Your task to perform on an android device: open app "Fetch Rewards" Image 0: 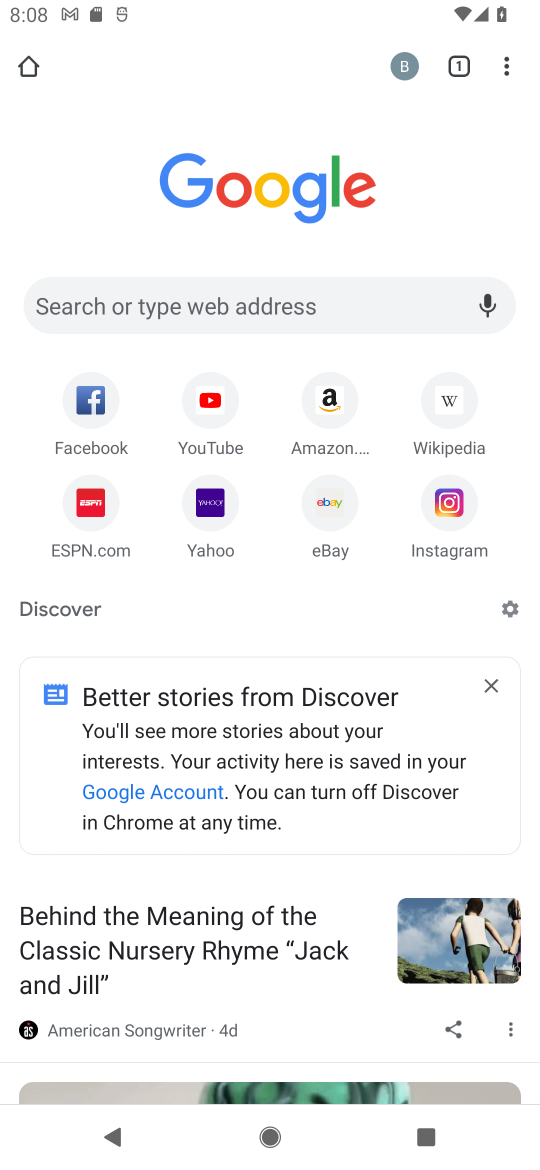
Step 0: press home button
Your task to perform on an android device: open app "Fetch Rewards" Image 1: 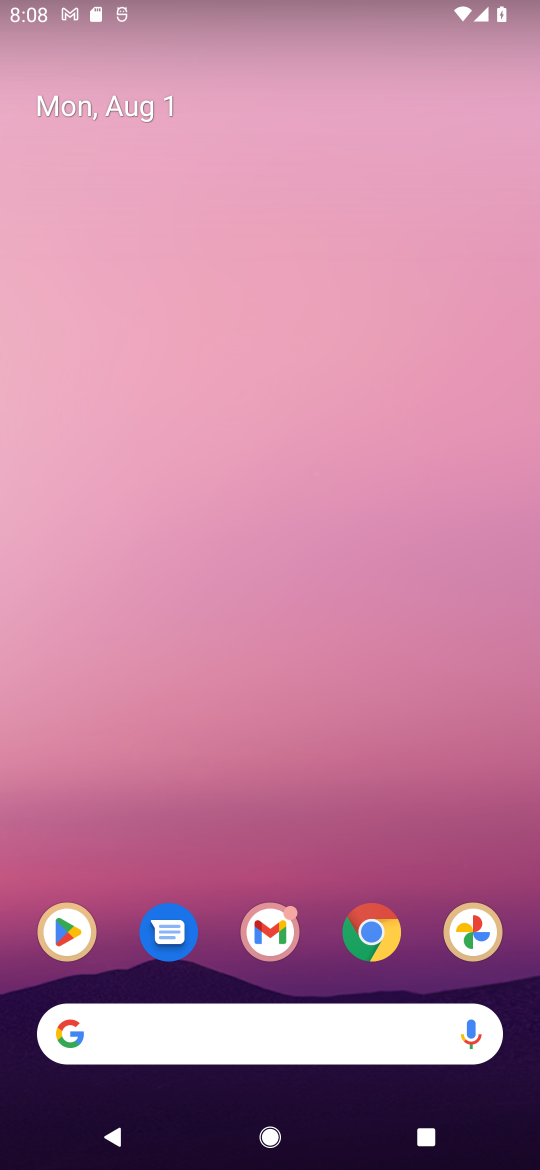
Step 1: click (54, 963)
Your task to perform on an android device: open app "Fetch Rewards" Image 2: 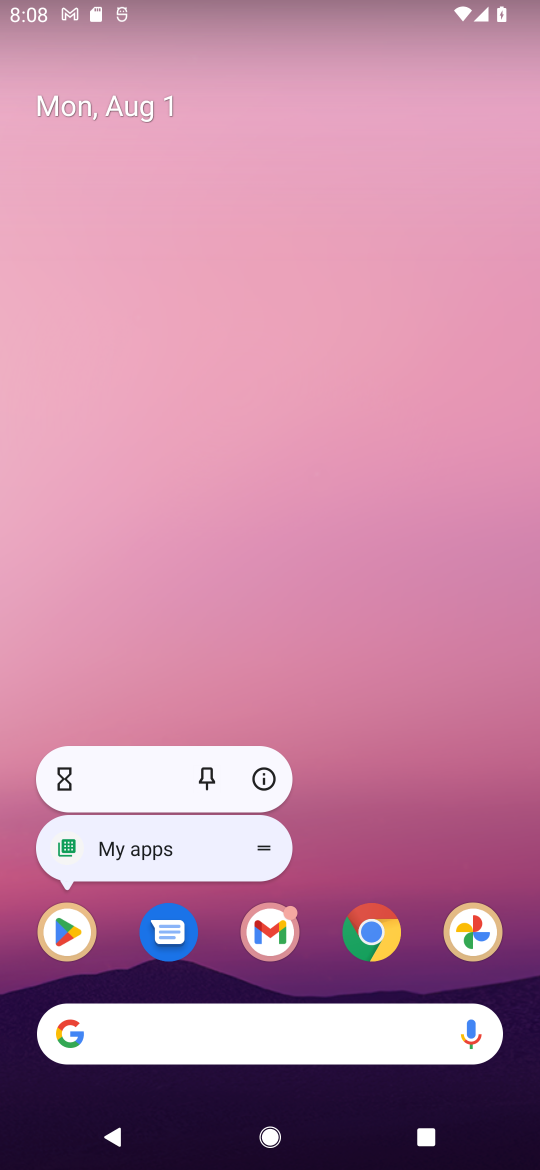
Step 2: click (68, 923)
Your task to perform on an android device: open app "Fetch Rewards" Image 3: 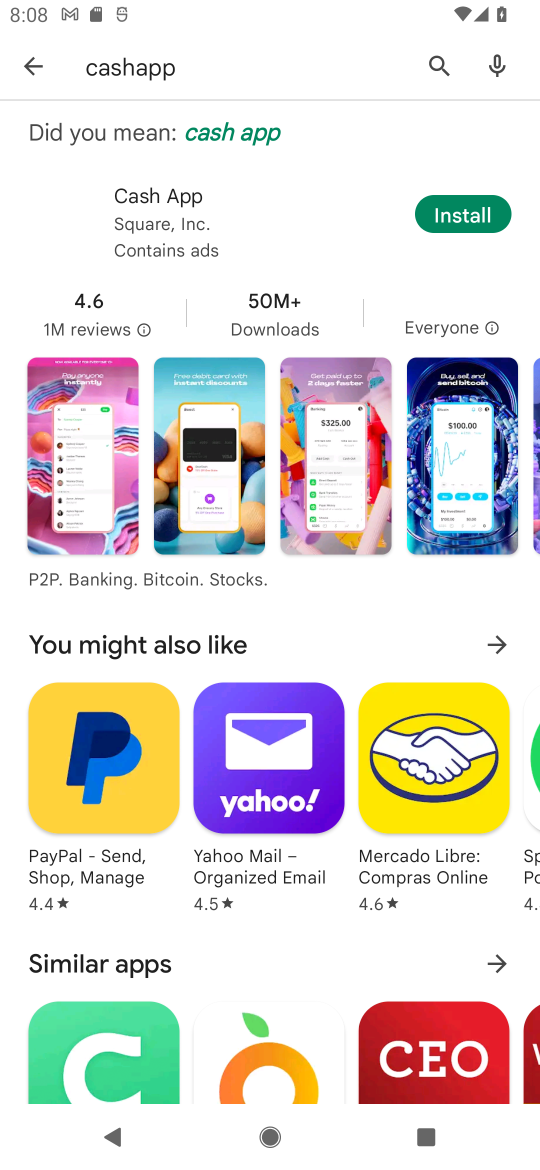
Step 3: click (196, 60)
Your task to perform on an android device: open app "Fetch Rewards" Image 4: 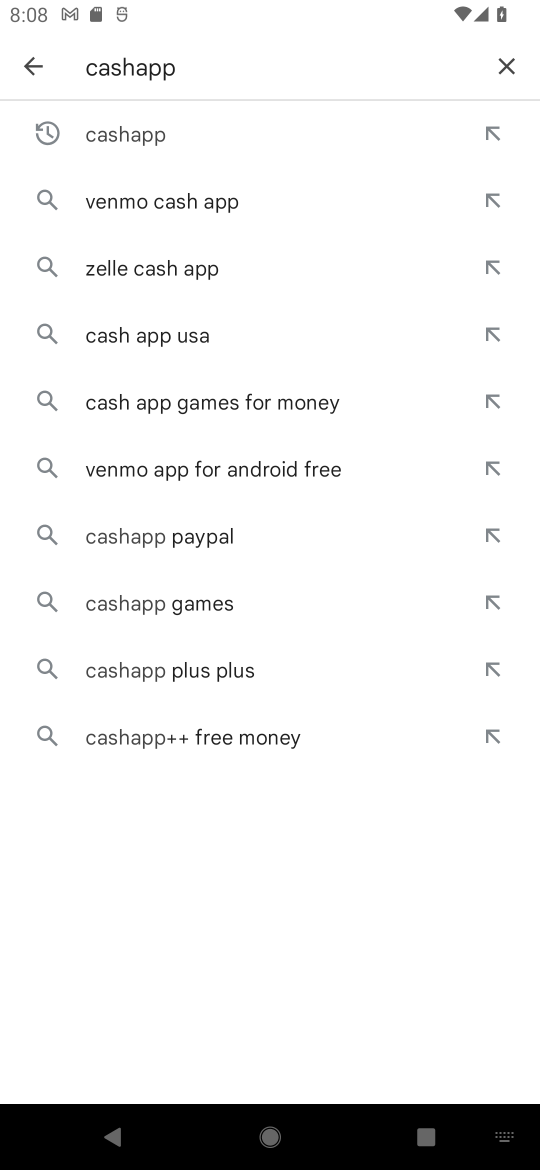
Step 4: click (494, 67)
Your task to perform on an android device: open app "Fetch Rewards" Image 5: 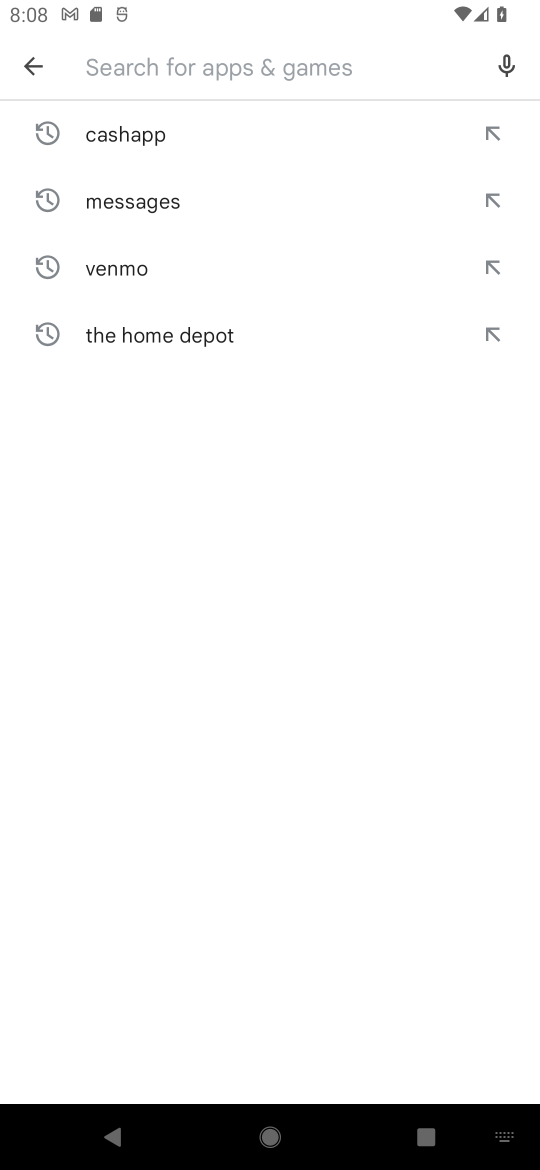
Step 5: type "fetch rewards"
Your task to perform on an android device: open app "Fetch Rewards" Image 6: 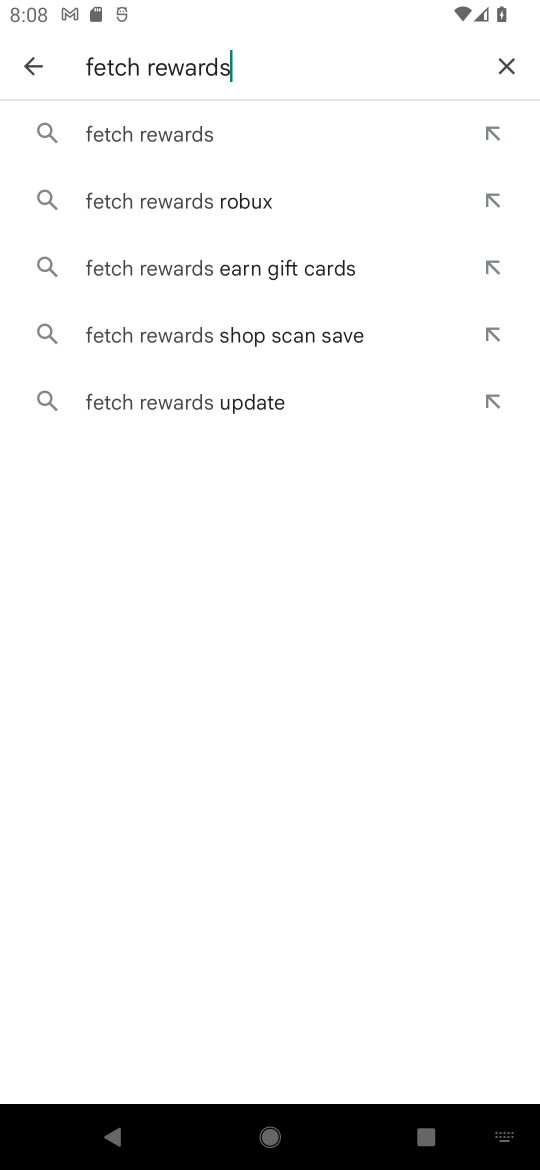
Step 6: click (221, 151)
Your task to perform on an android device: open app "Fetch Rewards" Image 7: 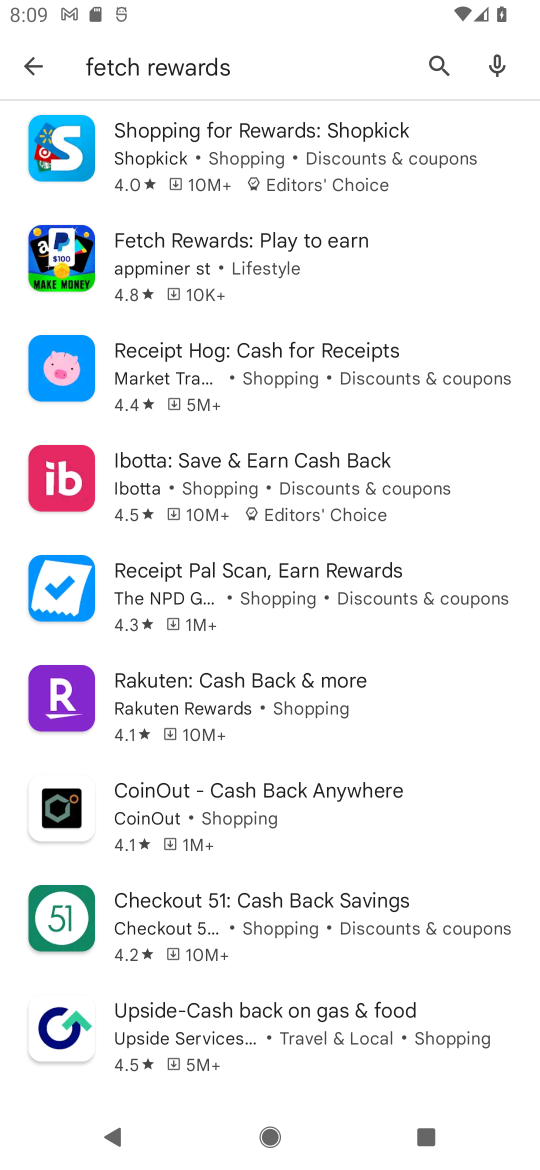
Step 7: click (168, 262)
Your task to perform on an android device: open app "Fetch Rewards" Image 8: 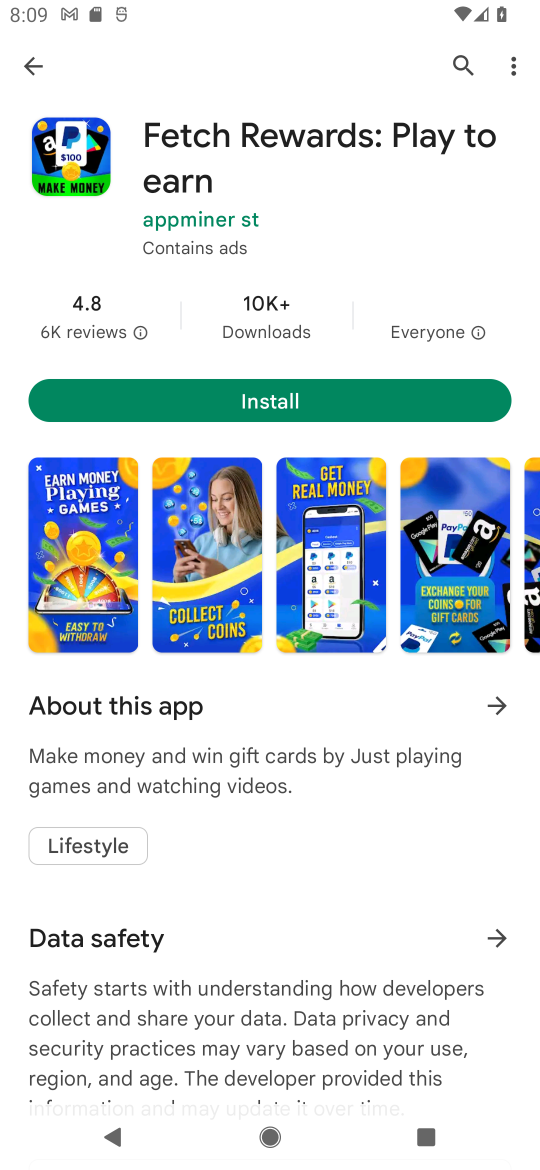
Step 8: task complete